Your task to perform on an android device: turn off data saver in the chrome app Image 0: 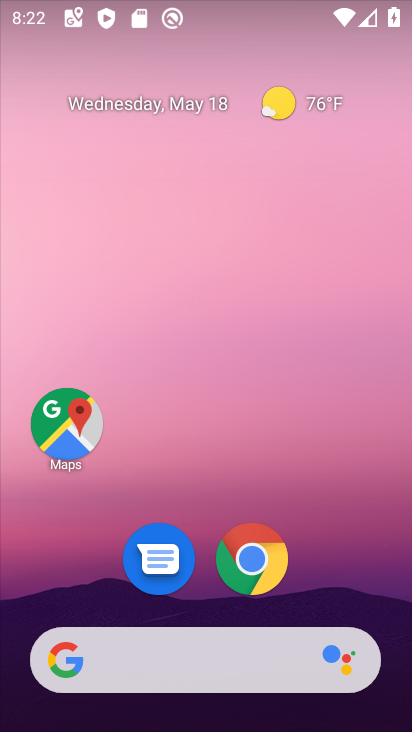
Step 0: click (255, 558)
Your task to perform on an android device: turn off data saver in the chrome app Image 1: 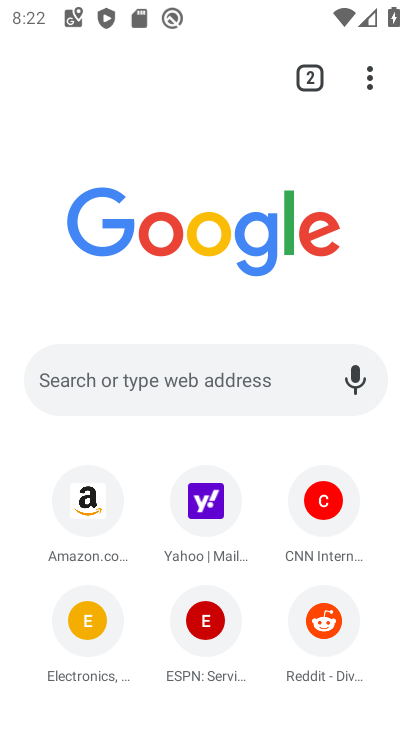
Step 1: click (358, 76)
Your task to perform on an android device: turn off data saver in the chrome app Image 2: 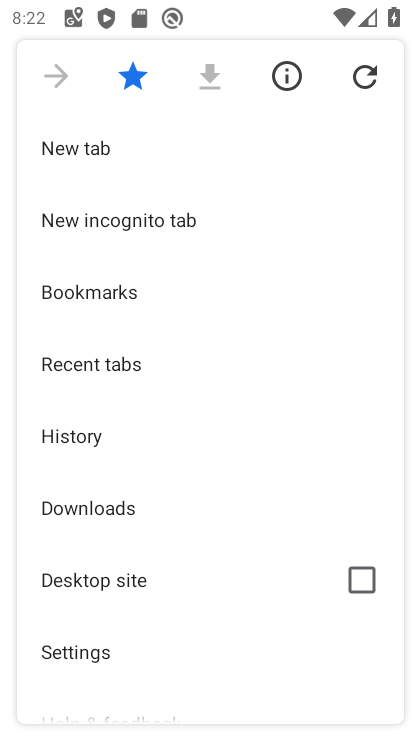
Step 2: click (127, 647)
Your task to perform on an android device: turn off data saver in the chrome app Image 3: 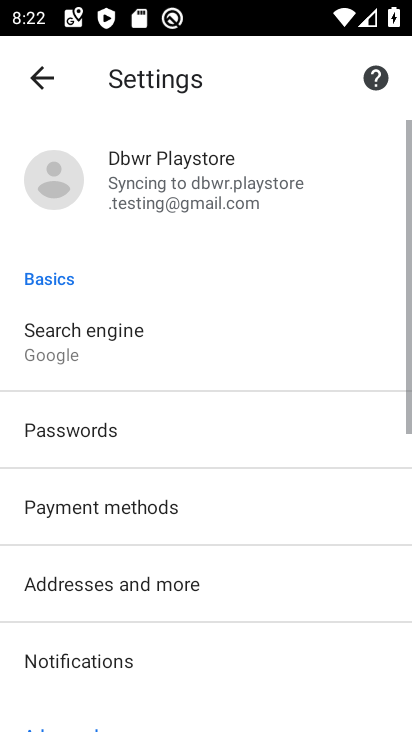
Step 3: drag from (189, 610) to (154, 90)
Your task to perform on an android device: turn off data saver in the chrome app Image 4: 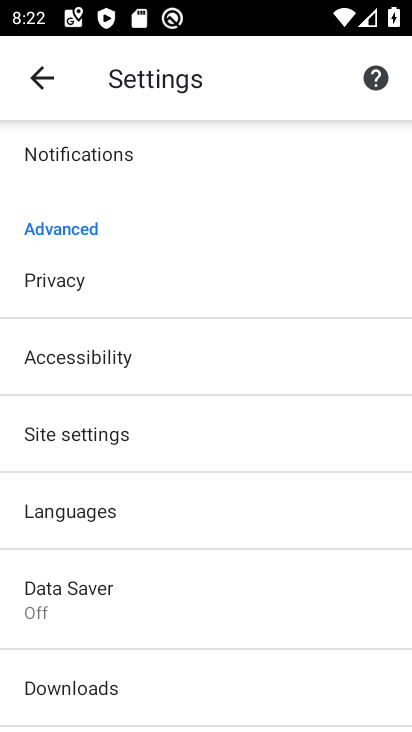
Step 4: click (78, 599)
Your task to perform on an android device: turn off data saver in the chrome app Image 5: 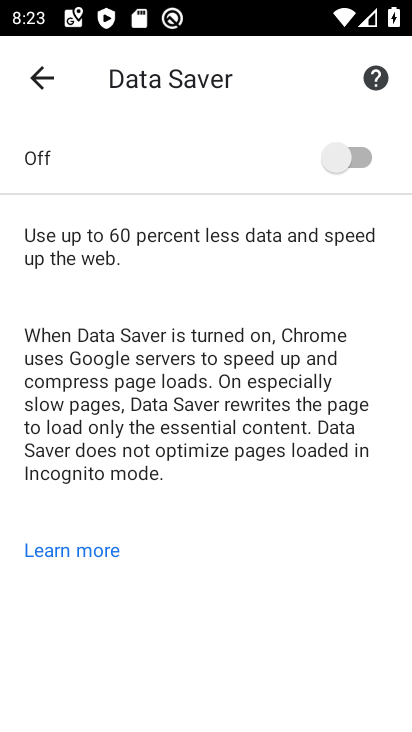
Step 5: task complete